Your task to perform on an android device: Open Yahoo.com Image 0: 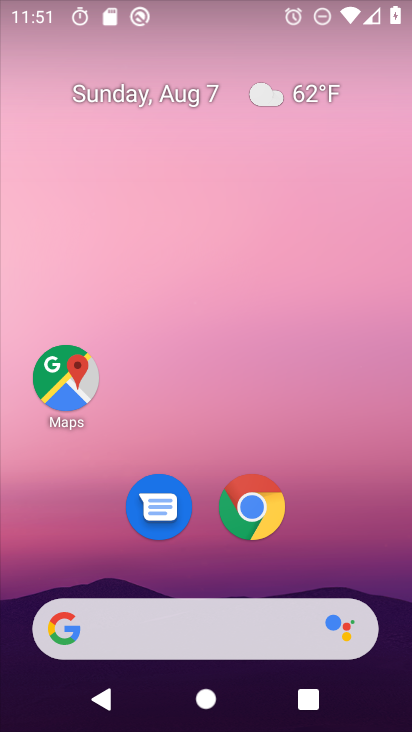
Step 0: drag from (324, 536) to (312, 42)
Your task to perform on an android device: Open Yahoo.com Image 1: 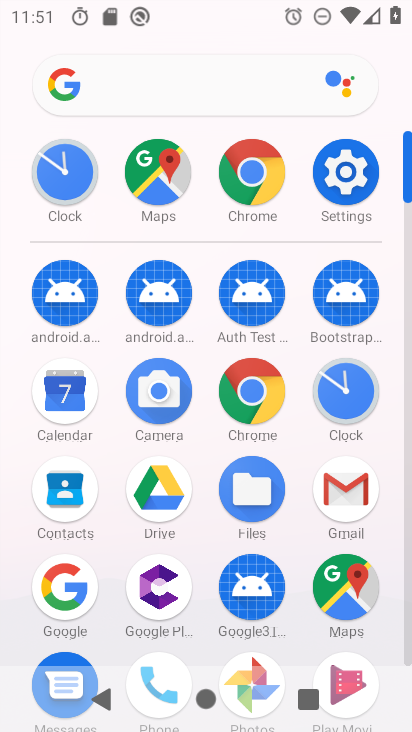
Step 1: click (248, 392)
Your task to perform on an android device: Open Yahoo.com Image 2: 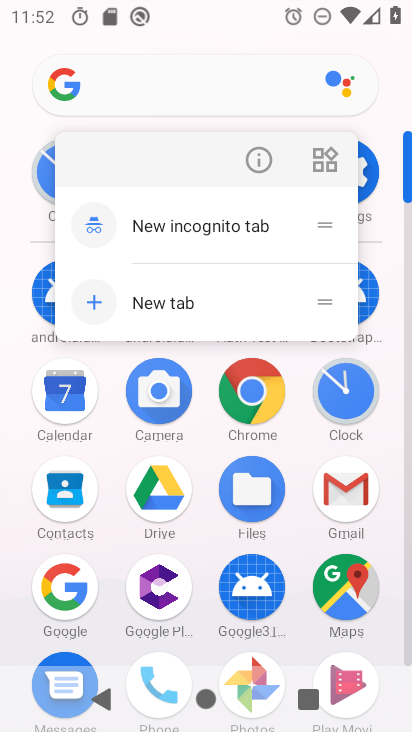
Step 2: click (250, 396)
Your task to perform on an android device: Open Yahoo.com Image 3: 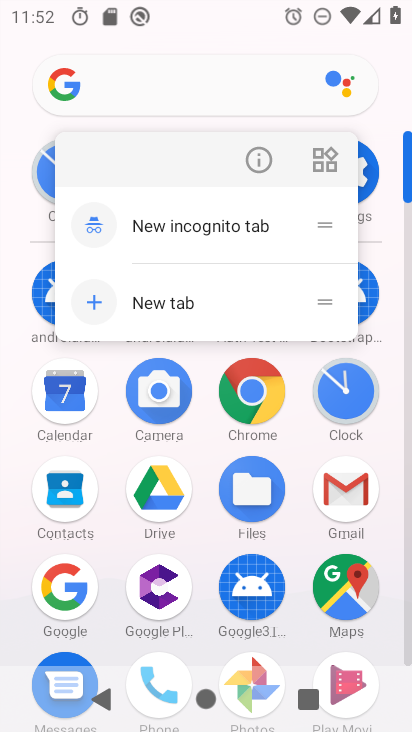
Step 3: click (249, 391)
Your task to perform on an android device: Open Yahoo.com Image 4: 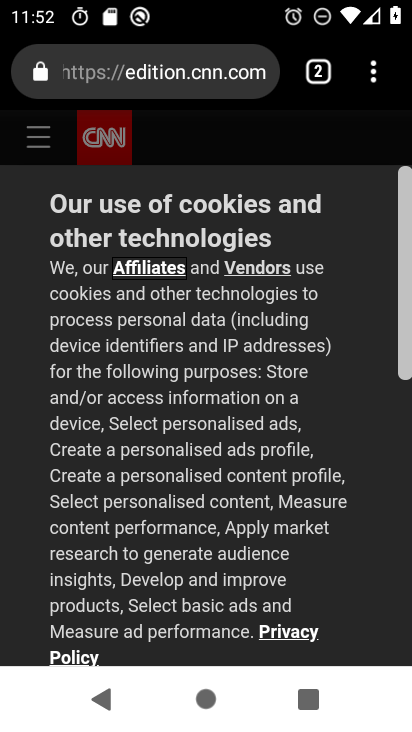
Step 4: click (169, 71)
Your task to perform on an android device: Open Yahoo.com Image 5: 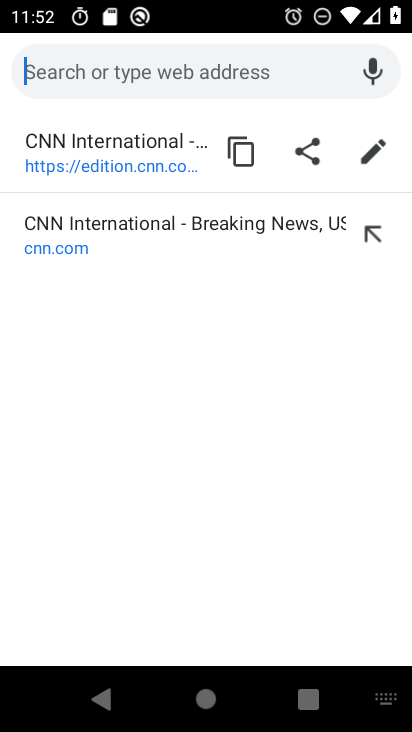
Step 5: type "Yahoo.com"
Your task to perform on an android device: Open Yahoo.com Image 6: 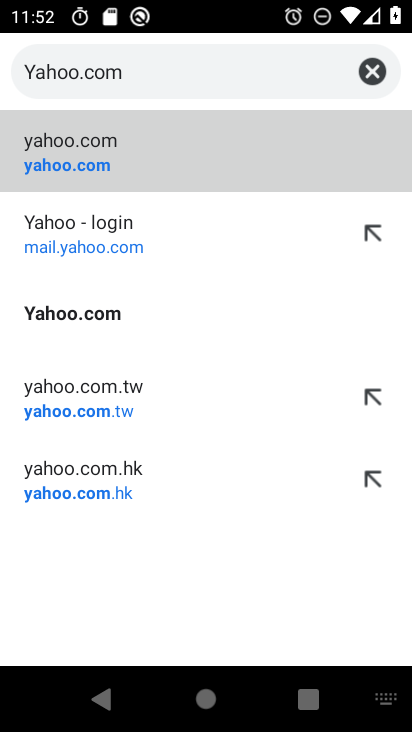
Step 6: click (96, 144)
Your task to perform on an android device: Open Yahoo.com Image 7: 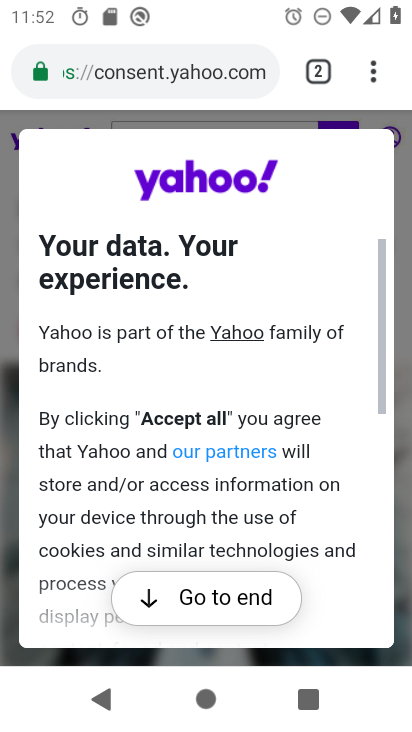
Step 7: task complete